Your task to perform on an android device: turn off notifications settings in the gmail app Image 0: 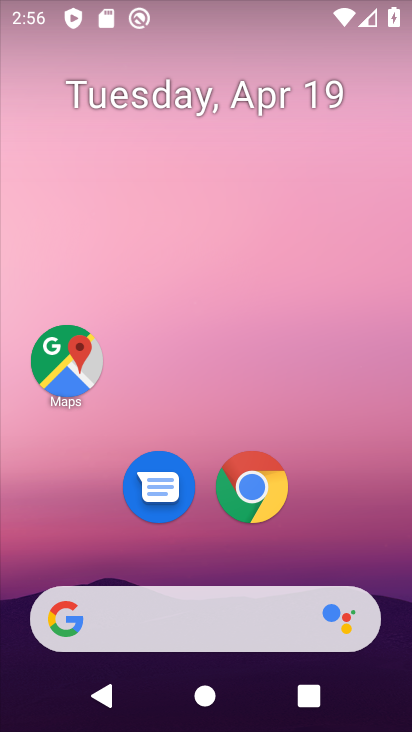
Step 0: drag from (223, 300) to (239, 57)
Your task to perform on an android device: turn off notifications settings in the gmail app Image 1: 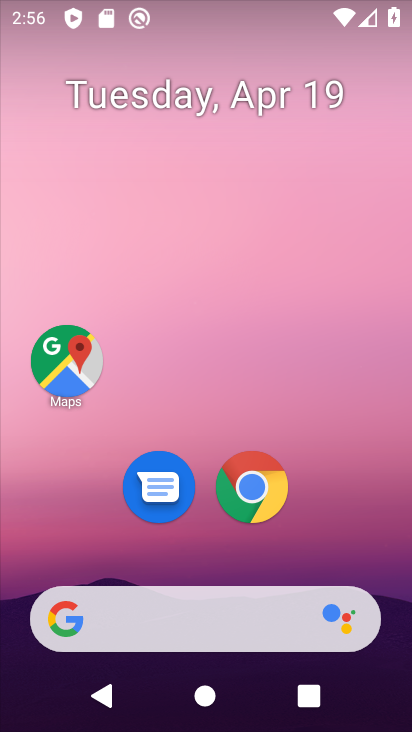
Step 1: drag from (222, 409) to (279, 18)
Your task to perform on an android device: turn off notifications settings in the gmail app Image 2: 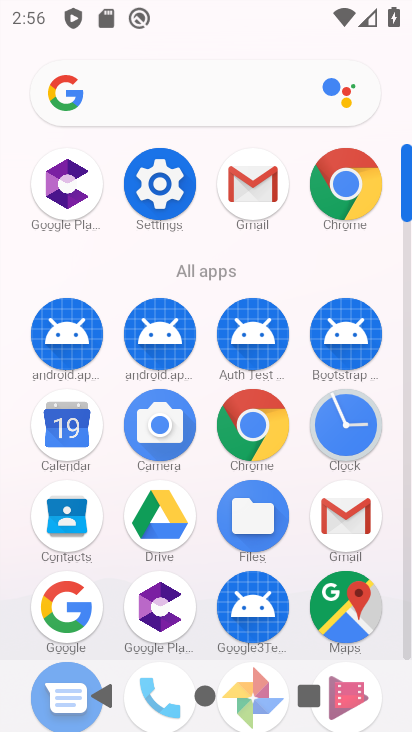
Step 2: click (245, 190)
Your task to perform on an android device: turn off notifications settings in the gmail app Image 3: 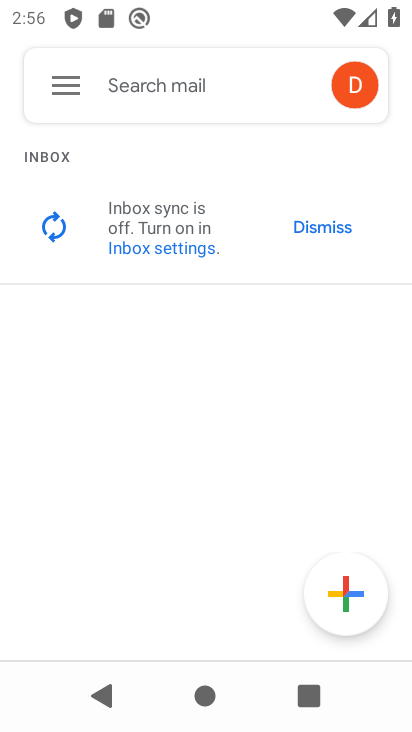
Step 3: press home button
Your task to perform on an android device: turn off notifications settings in the gmail app Image 4: 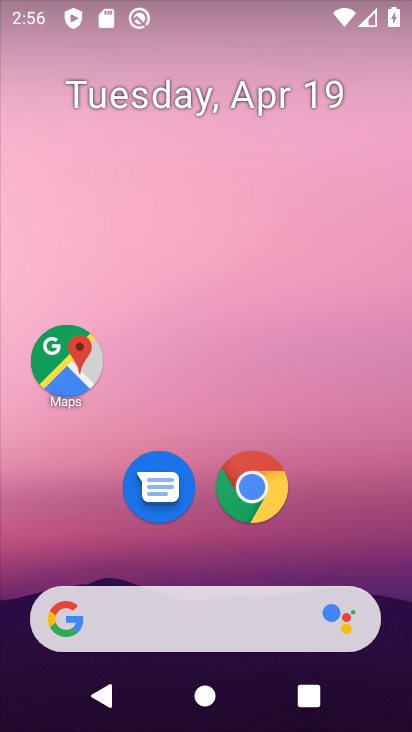
Step 4: drag from (199, 419) to (246, 1)
Your task to perform on an android device: turn off notifications settings in the gmail app Image 5: 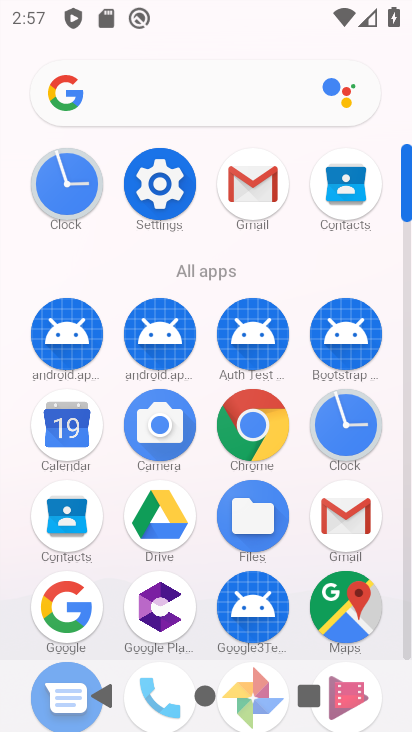
Step 5: click (257, 183)
Your task to perform on an android device: turn off notifications settings in the gmail app Image 6: 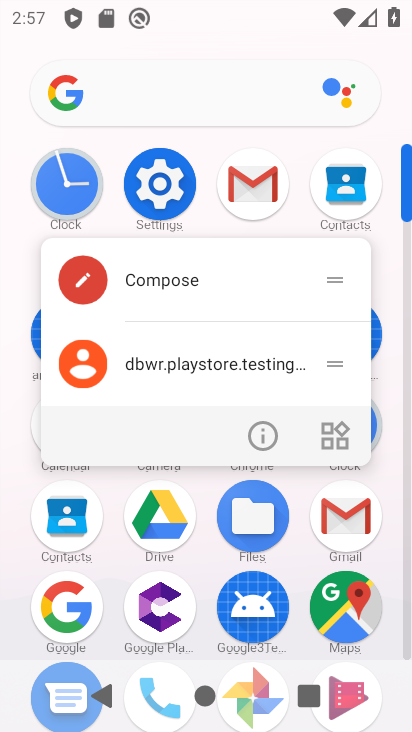
Step 6: click (256, 438)
Your task to perform on an android device: turn off notifications settings in the gmail app Image 7: 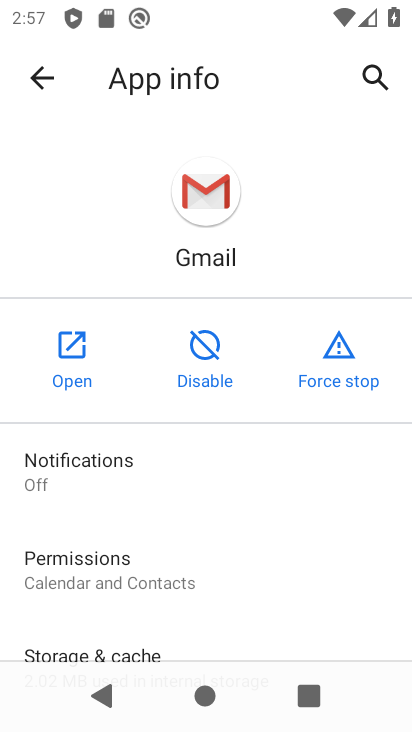
Step 7: click (155, 469)
Your task to perform on an android device: turn off notifications settings in the gmail app Image 8: 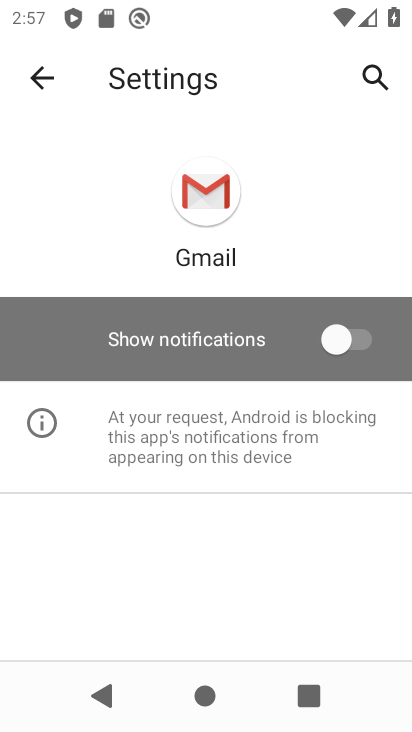
Step 8: task complete